Your task to perform on an android device: toggle show notifications on the lock screen Image 0: 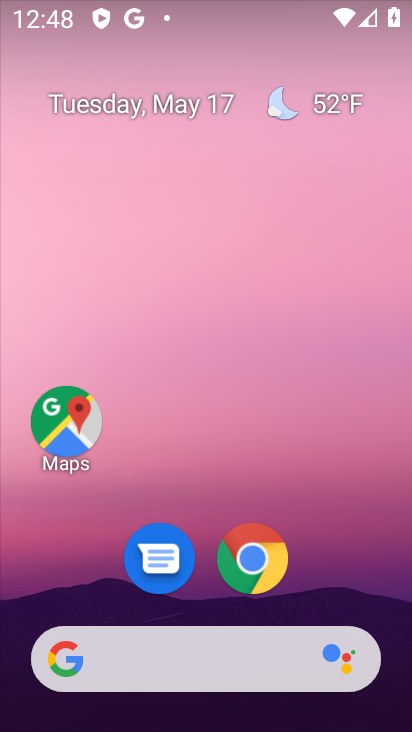
Step 0: drag from (358, 592) to (386, 177)
Your task to perform on an android device: toggle show notifications on the lock screen Image 1: 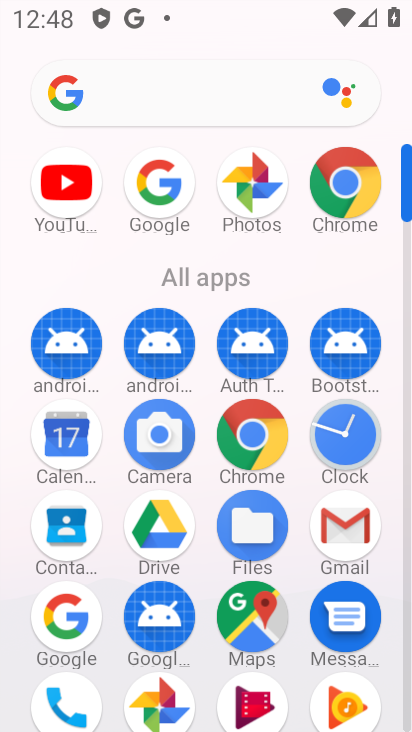
Step 1: drag from (207, 557) to (204, 404)
Your task to perform on an android device: toggle show notifications on the lock screen Image 2: 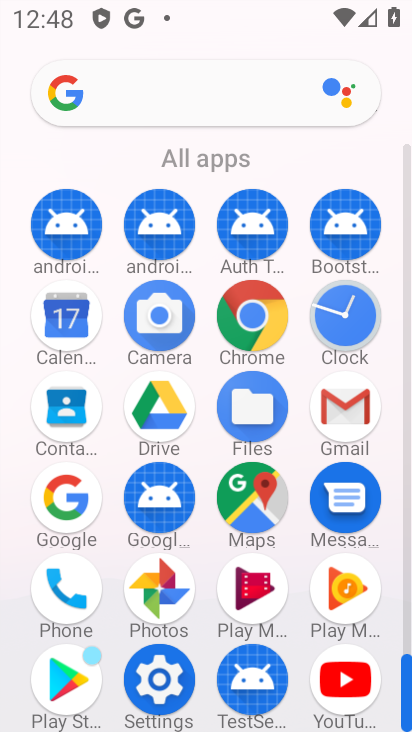
Step 2: click (138, 693)
Your task to perform on an android device: toggle show notifications on the lock screen Image 3: 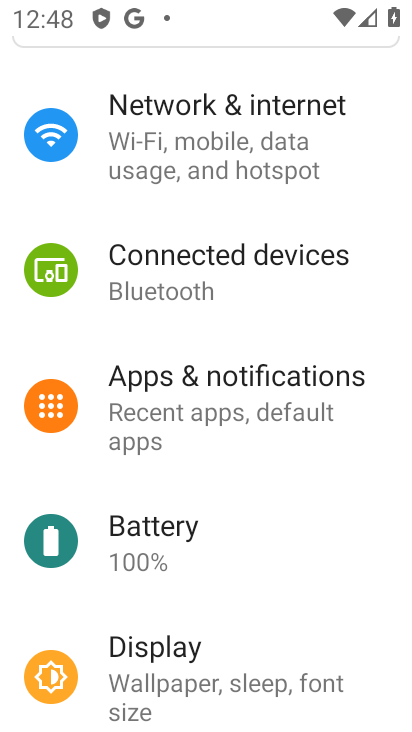
Step 3: drag from (326, 547) to (344, 399)
Your task to perform on an android device: toggle show notifications on the lock screen Image 4: 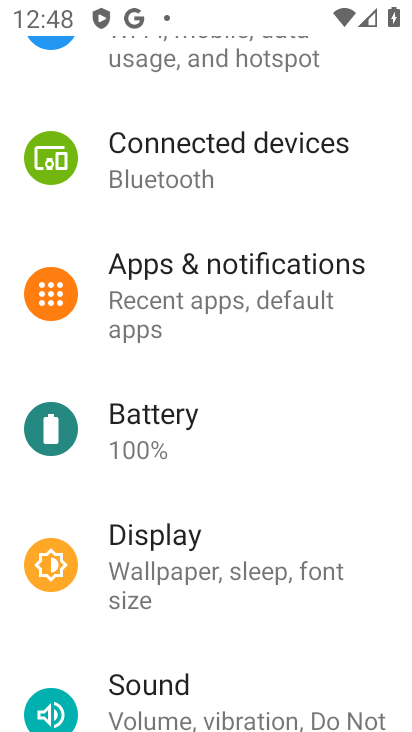
Step 4: drag from (320, 635) to (349, 410)
Your task to perform on an android device: toggle show notifications on the lock screen Image 5: 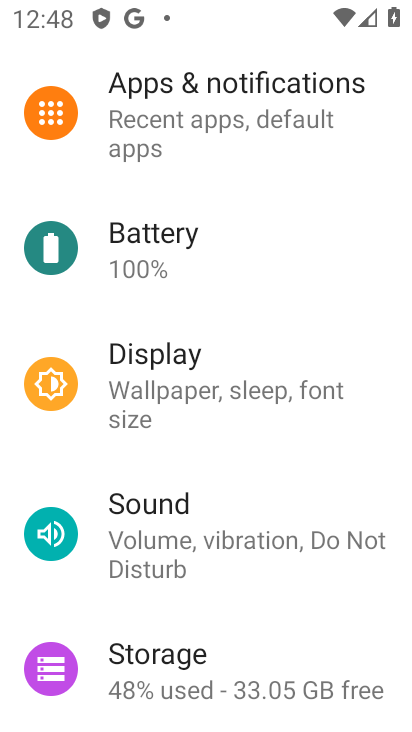
Step 5: drag from (299, 628) to (321, 453)
Your task to perform on an android device: toggle show notifications on the lock screen Image 6: 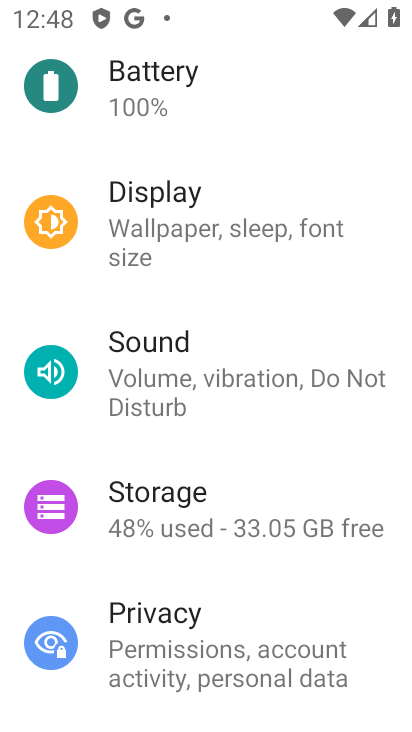
Step 6: drag from (311, 601) to (316, 454)
Your task to perform on an android device: toggle show notifications on the lock screen Image 7: 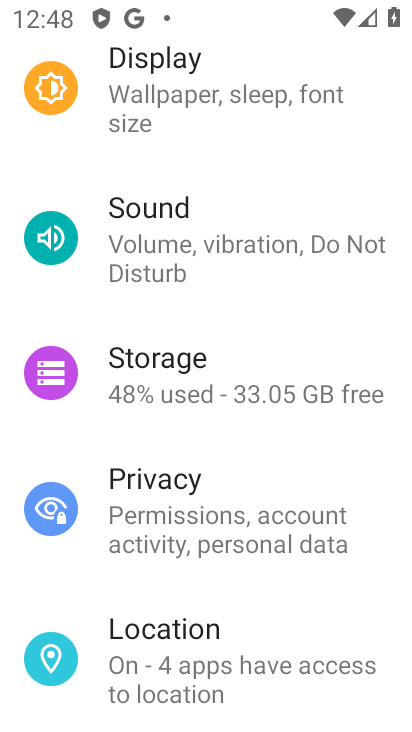
Step 7: drag from (320, 618) to (326, 495)
Your task to perform on an android device: toggle show notifications on the lock screen Image 8: 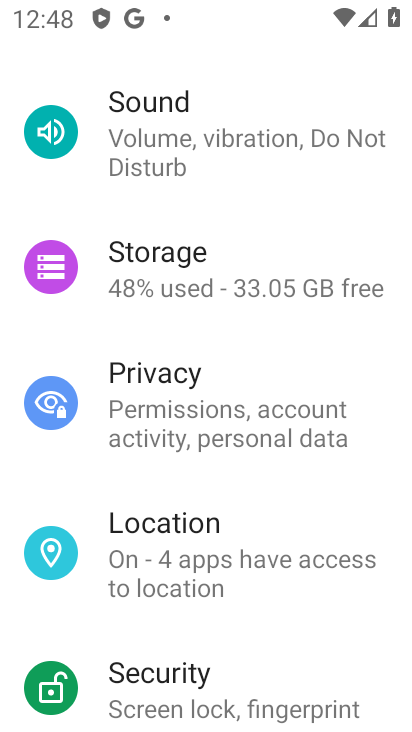
Step 8: drag from (301, 634) to (301, 522)
Your task to perform on an android device: toggle show notifications on the lock screen Image 9: 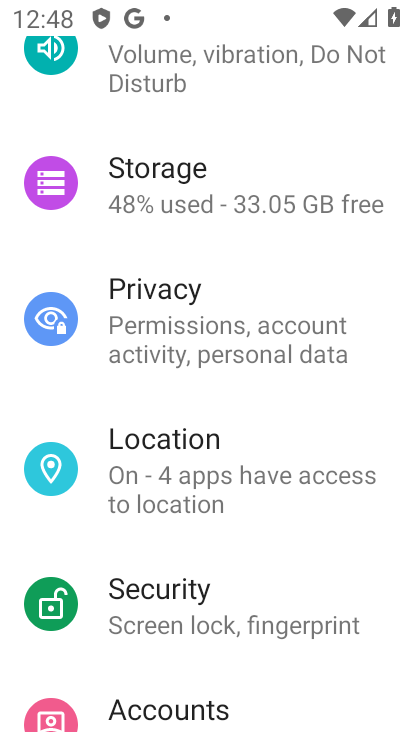
Step 9: drag from (264, 652) to (282, 533)
Your task to perform on an android device: toggle show notifications on the lock screen Image 10: 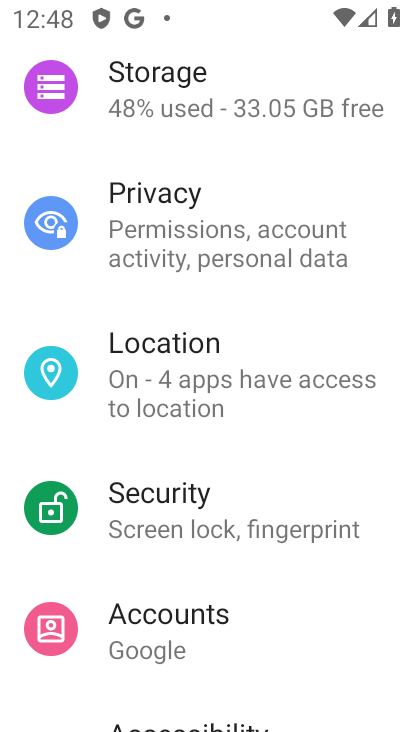
Step 10: drag from (269, 659) to (285, 549)
Your task to perform on an android device: toggle show notifications on the lock screen Image 11: 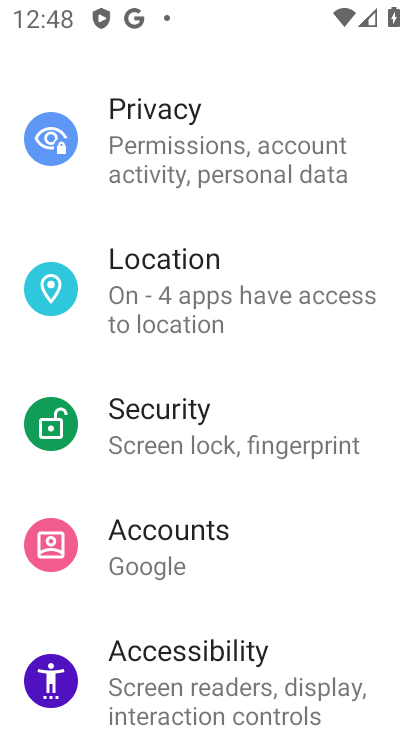
Step 11: drag from (285, 674) to (300, 545)
Your task to perform on an android device: toggle show notifications on the lock screen Image 12: 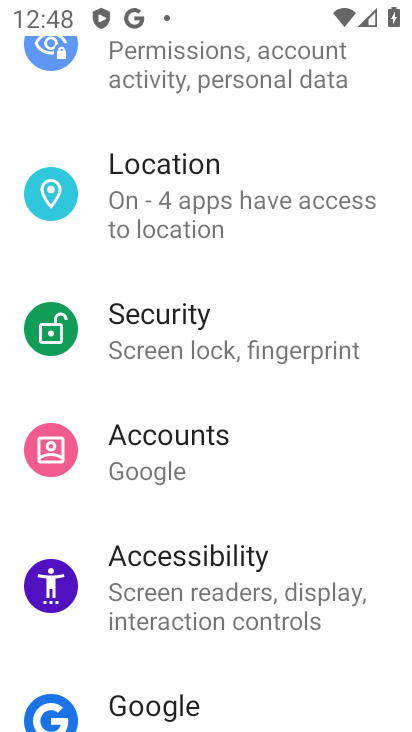
Step 12: drag from (319, 666) to (313, 511)
Your task to perform on an android device: toggle show notifications on the lock screen Image 13: 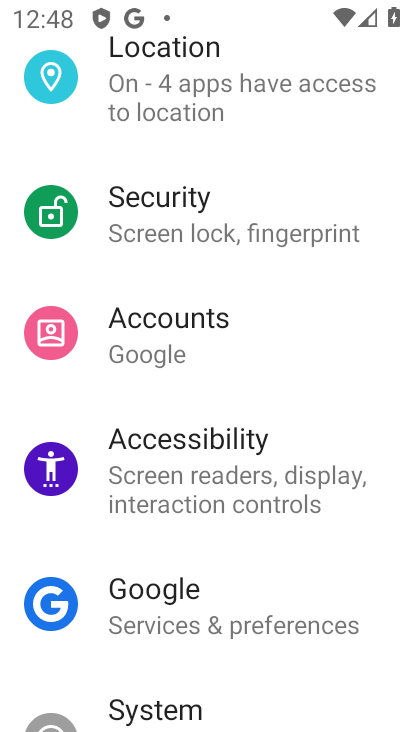
Step 13: drag from (309, 652) to (334, 522)
Your task to perform on an android device: toggle show notifications on the lock screen Image 14: 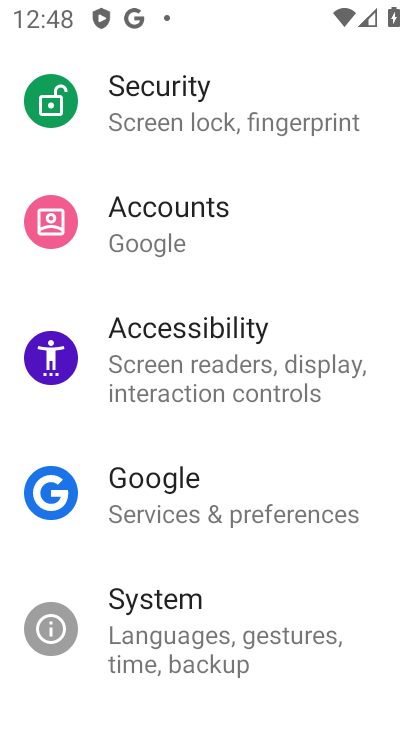
Step 14: drag from (329, 685) to (334, 491)
Your task to perform on an android device: toggle show notifications on the lock screen Image 15: 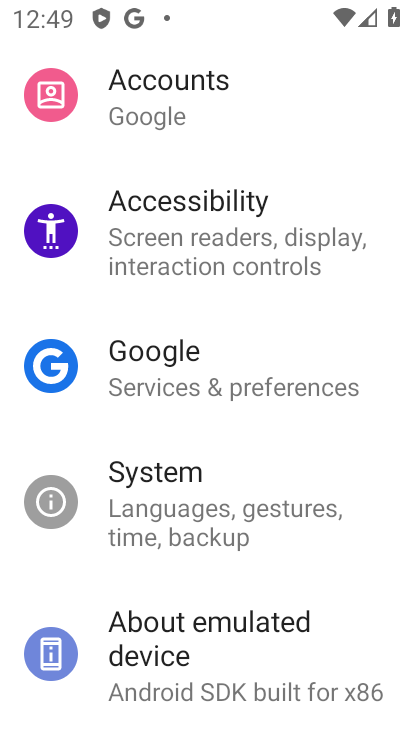
Step 15: drag from (358, 340) to (361, 376)
Your task to perform on an android device: toggle show notifications on the lock screen Image 16: 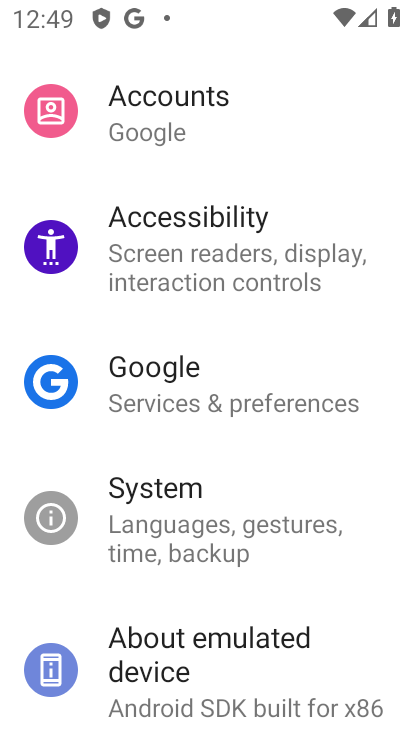
Step 16: drag from (377, 213) to (378, 356)
Your task to perform on an android device: toggle show notifications on the lock screen Image 17: 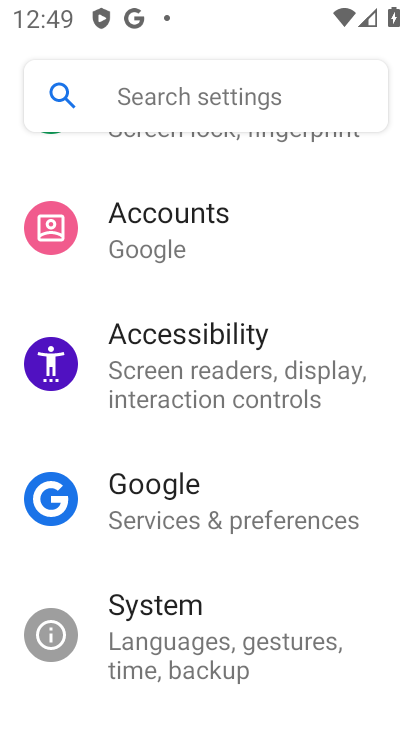
Step 17: drag from (357, 179) to (369, 326)
Your task to perform on an android device: toggle show notifications on the lock screen Image 18: 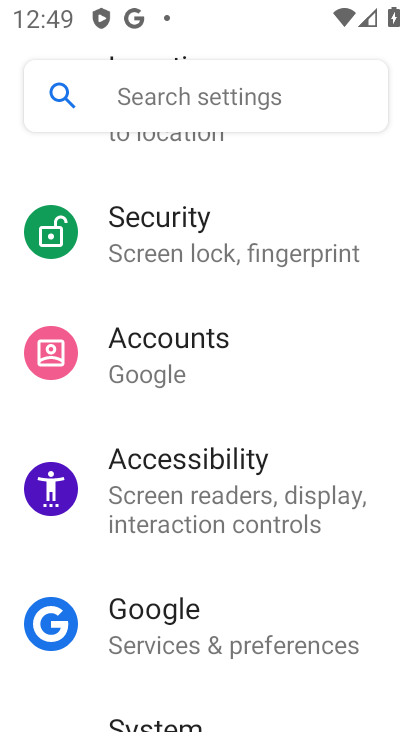
Step 18: drag from (369, 209) to (371, 329)
Your task to perform on an android device: toggle show notifications on the lock screen Image 19: 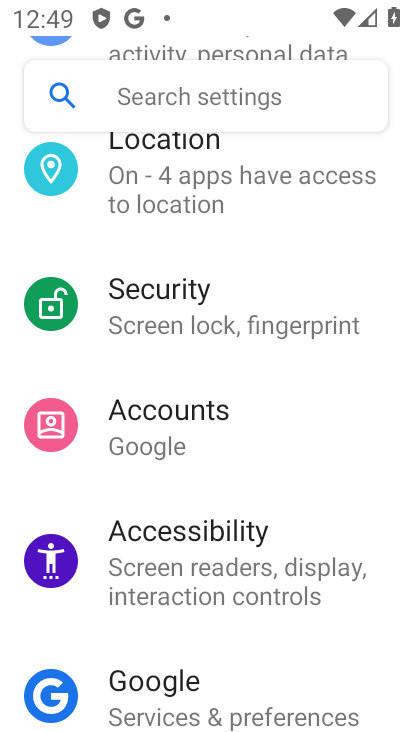
Step 19: drag from (358, 221) to (372, 334)
Your task to perform on an android device: toggle show notifications on the lock screen Image 20: 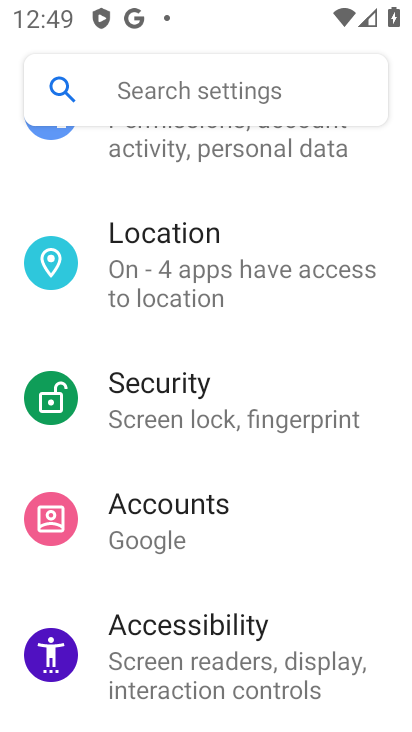
Step 20: drag from (357, 302) to (356, 483)
Your task to perform on an android device: toggle show notifications on the lock screen Image 21: 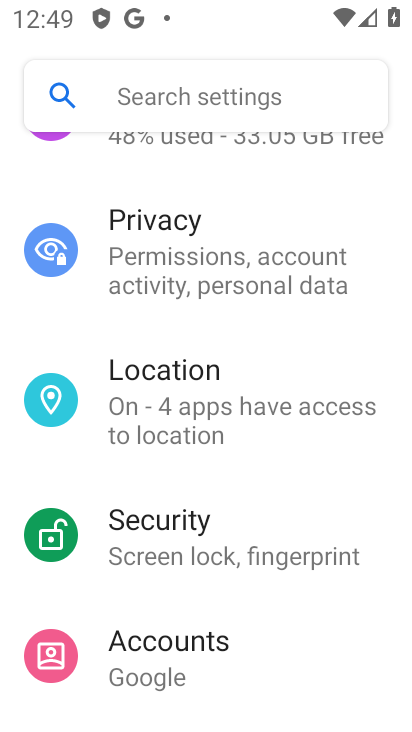
Step 21: drag from (351, 305) to (356, 460)
Your task to perform on an android device: toggle show notifications on the lock screen Image 22: 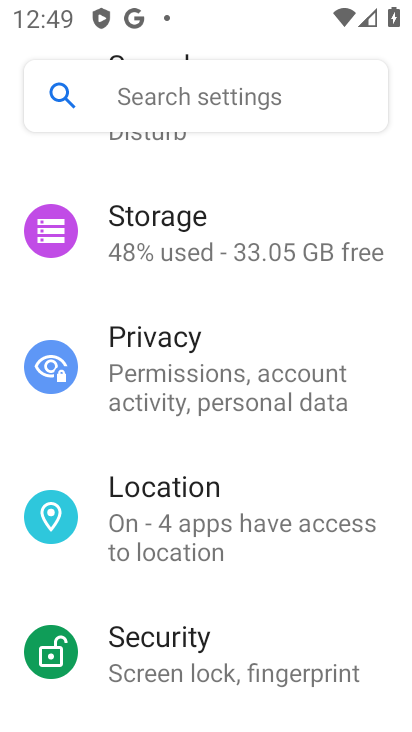
Step 22: drag from (345, 203) to (356, 393)
Your task to perform on an android device: toggle show notifications on the lock screen Image 23: 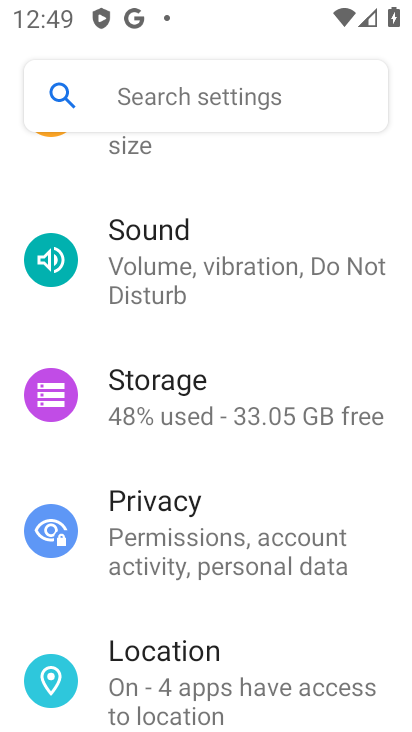
Step 23: drag from (347, 161) to (350, 332)
Your task to perform on an android device: toggle show notifications on the lock screen Image 24: 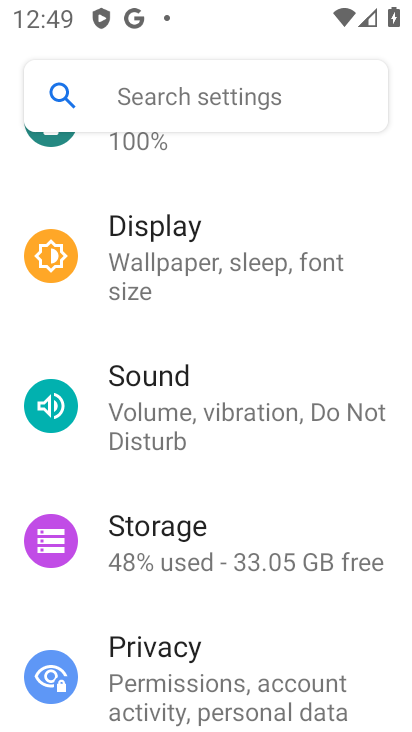
Step 24: drag from (334, 196) to (353, 355)
Your task to perform on an android device: toggle show notifications on the lock screen Image 25: 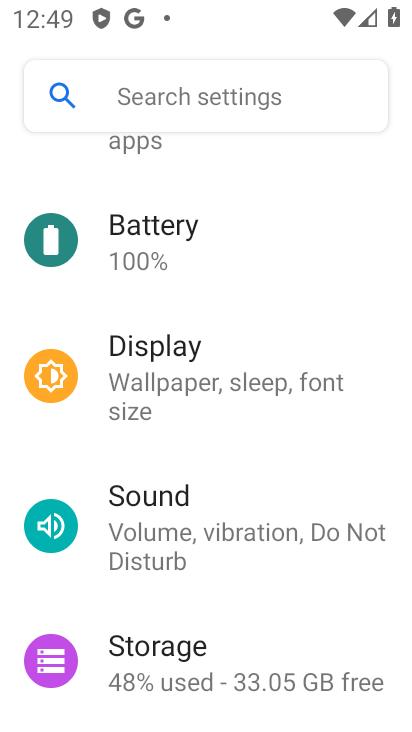
Step 25: drag from (330, 207) to (334, 281)
Your task to perform on an android device: toggle show notifications on the lock screen Image 26: 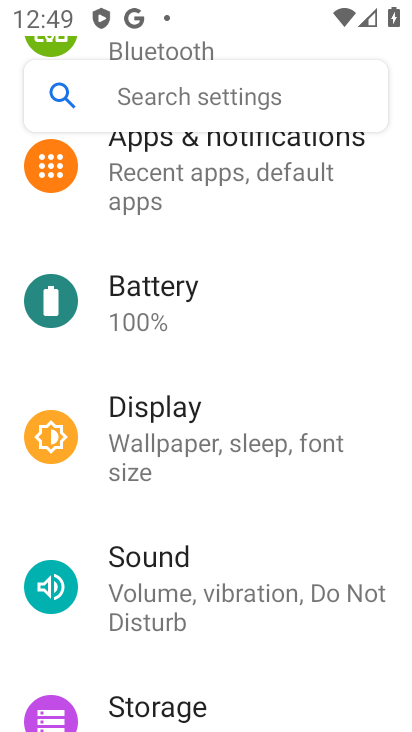
Step 26: drag from (331, 238) to (333, 321)
Your task to perform on an android device: toggle show notifications on the lock screen Image 27: 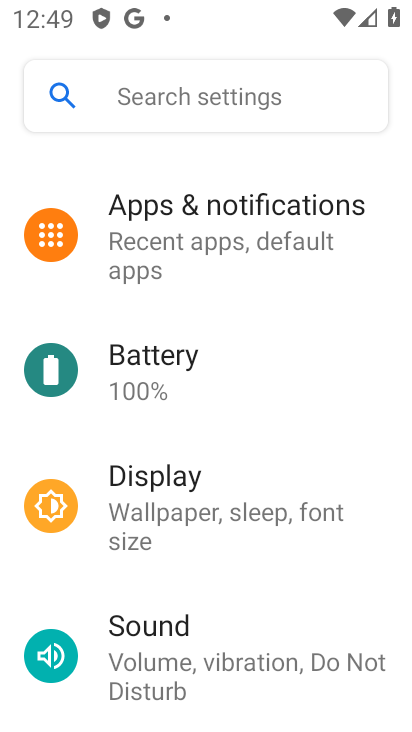
Step 27: click (267, 201)
Your task to perform on an android device: toggle show notifications on the lock screen Image 28: 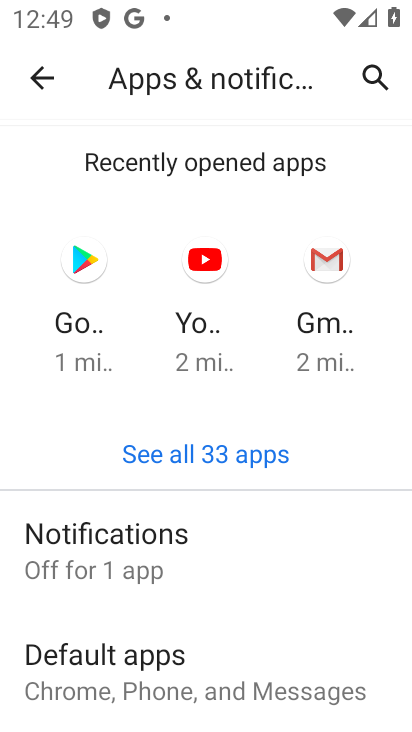
Step 28: click (155, 539)
Your task to perform on an android device: toggle show notifications on the lock screen Image 29: 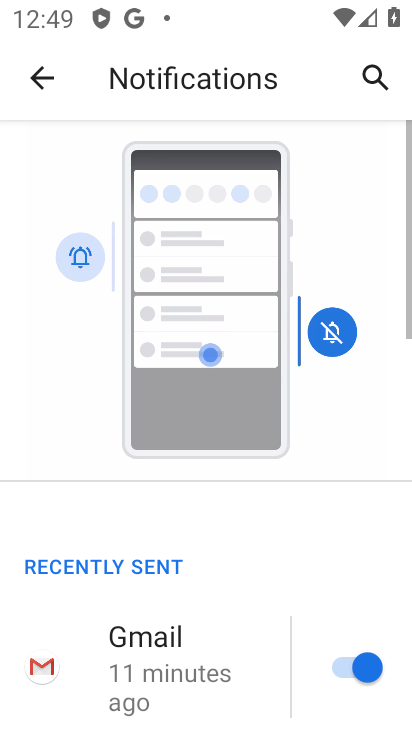
Step 29: drag from (249, 587) to (249, 405)
Your task to perform on an android device: toggle show notifications on the lock screen Image 30: 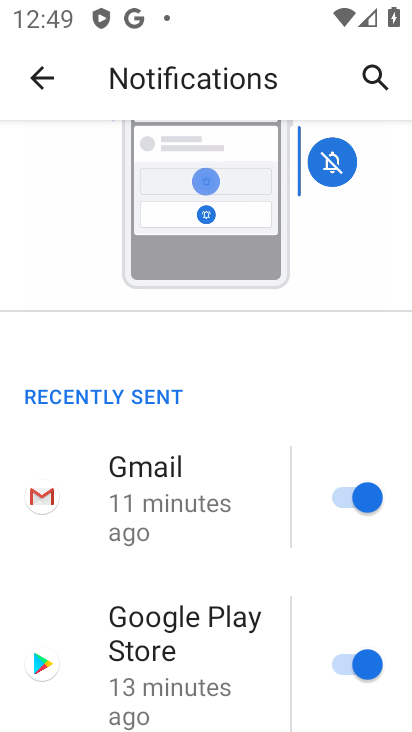
Step 30: drag from (251, 669) to (248, 420)
Your task to perform on an android device: toggle show notifications on the lock screen Image 31: 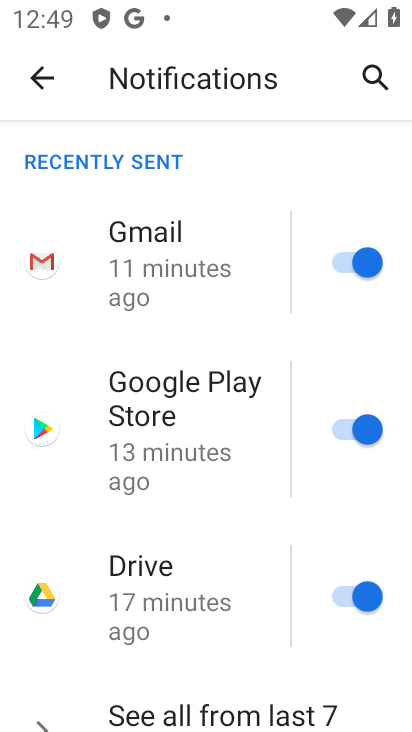
Step 31: drag from (219, 642) to (250, 487)
Your task to perform on an android device: toggle show notifications on the lock screen Image 32: 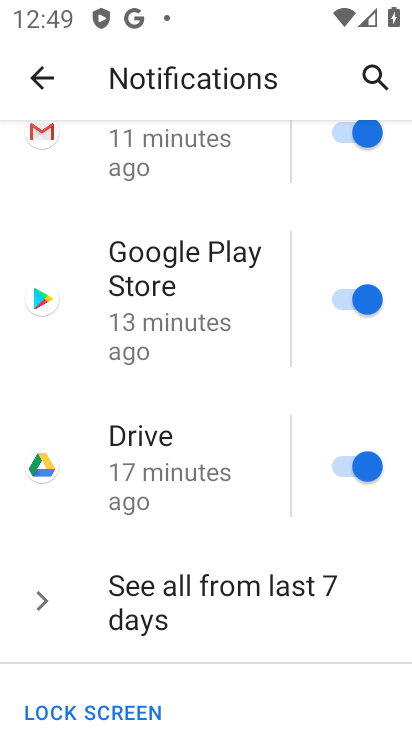
Step 32: click (273, 621)
Your task to perform on an android device: toggle show notifications on the lock screen Image 33: 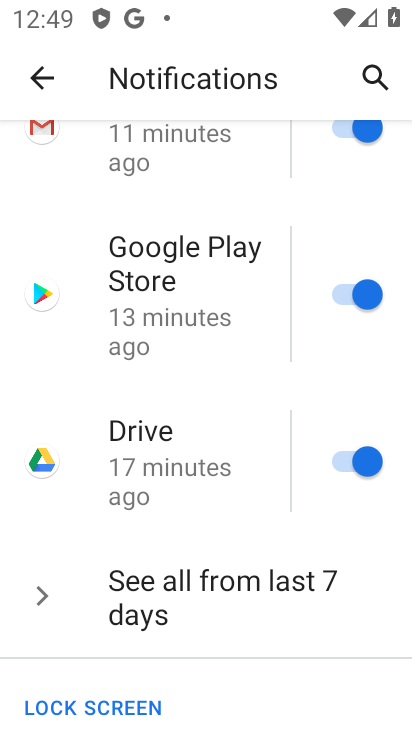
Step 33: click (283, 600)
Your task to perform on an android device: toggle show notifications on the lock screen Image 34: 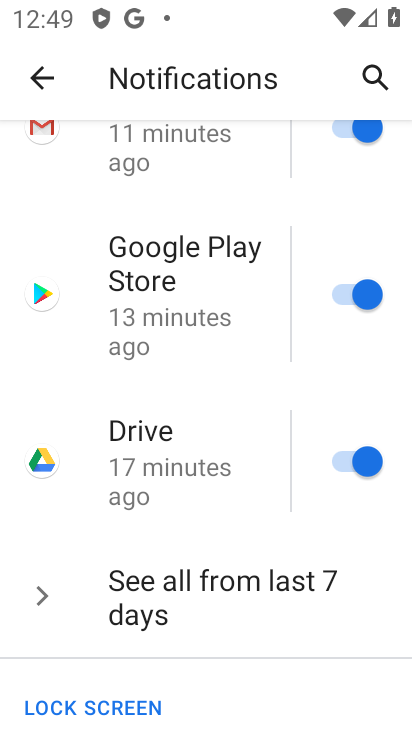
Step 34: drag from (307, 648) to (335, 539)
Your task to perform on an android device: toggle show notifications on the lock screen Image 35: 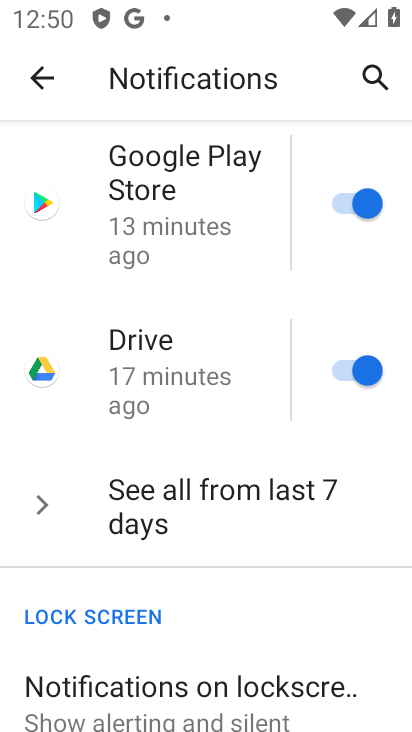
Step 35: click (236, 684)
Your task to perform on an android device: toggle show notifications on the lock screen Image 36: 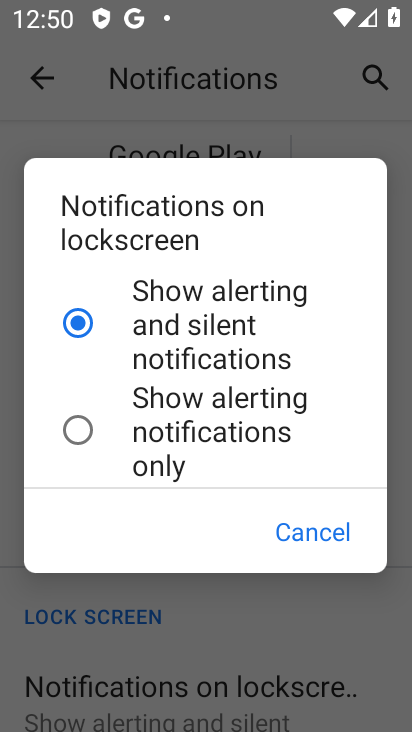
Step 36: click (73, 419)
Your task to perform on an android device: toggle show notifications on the lock screen Image 37: 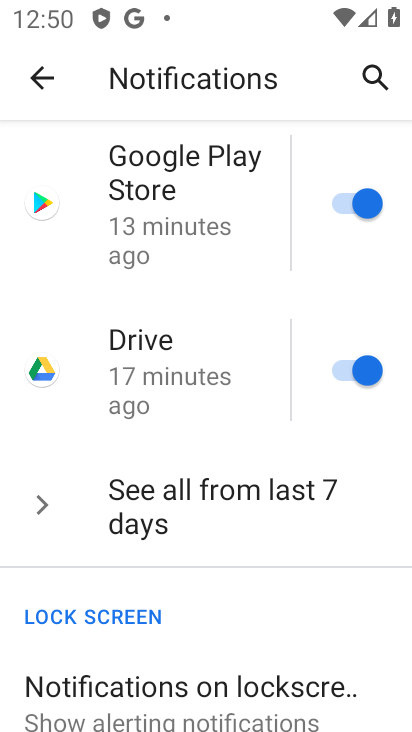
Step 37: task complete